Your task to perform on an android device: turn off location history Image 0: 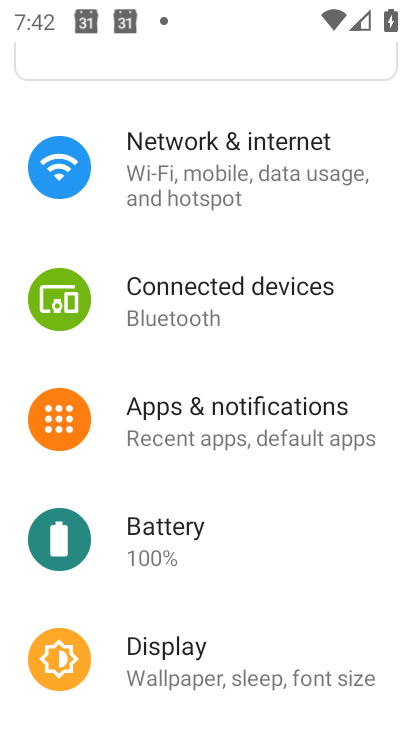
Step 0: drag from (116, 674) to (63, 45)
Your task to perform on an android device: turn off location history Image 1: 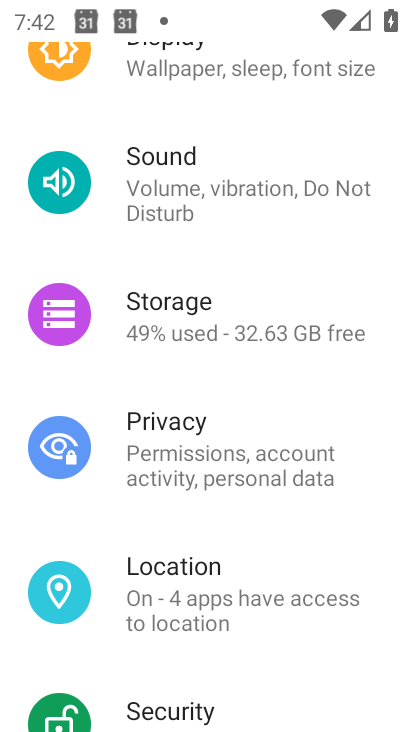
Step 1: click (170, 576)
Your task to perform on an android device: turn off location history Image 2: 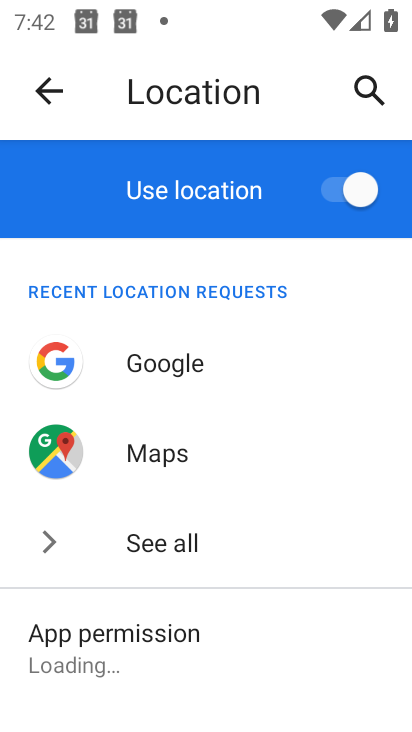
Step 2: drag from (188, 566) to (102, 21)
Your task to perform on an android device: turn off location history Image 3: 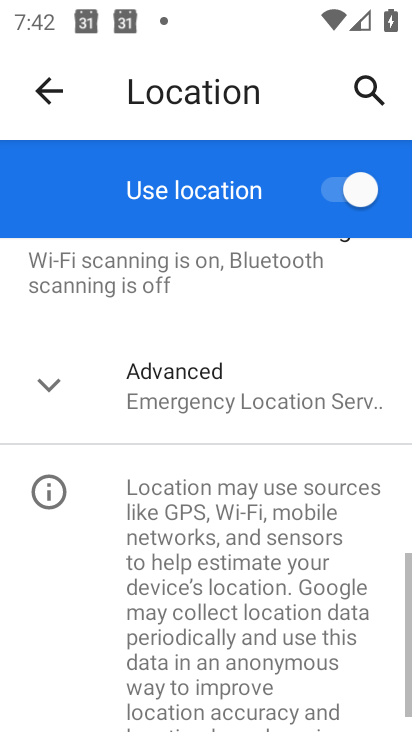
Step 3: click (150, 376)
Your task to perform on an android device: turn off location history Image 4: 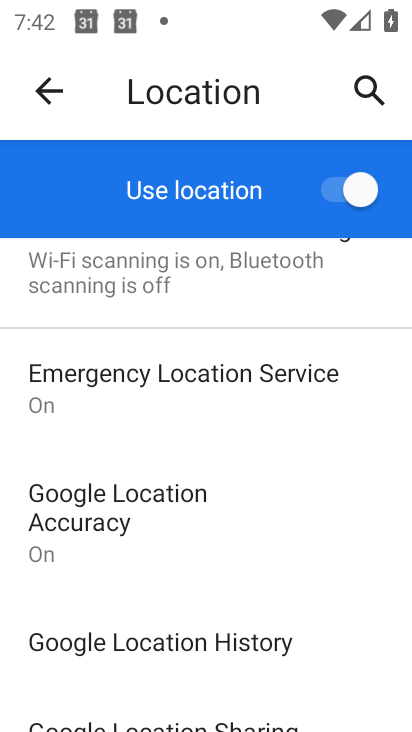
Step 4: click (202, 635)
Your task to perform on an android device: turn off location history Image 5: 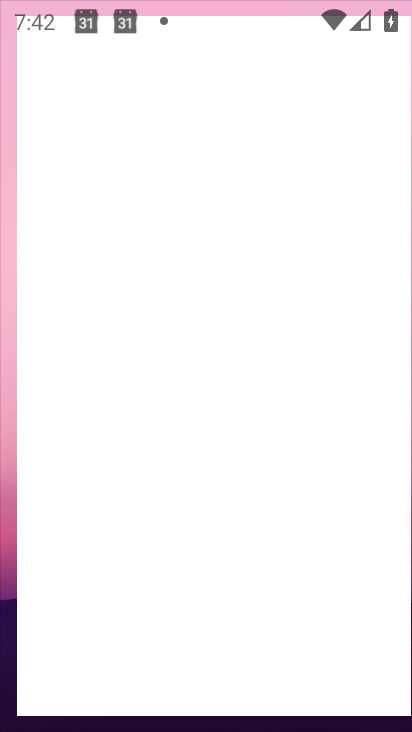
Step 5: drag from (202, 635) to (126, 74)
Your task to perform on an android device: turn off location history Image 6: 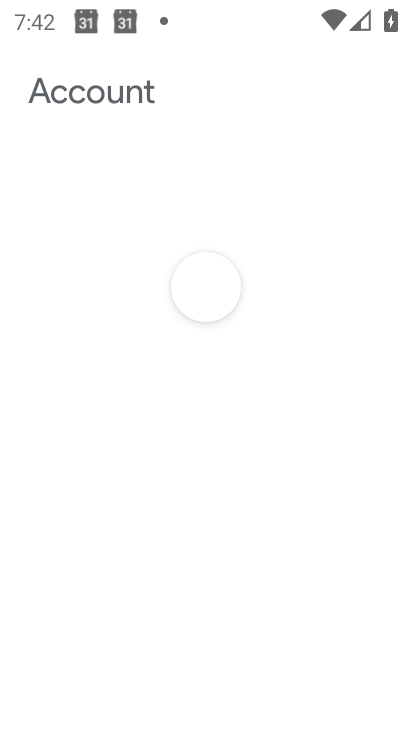
Step 6: drag from (160, 580) to (151, 191)
Your task to perform on an android device: turn off location history Image 7: 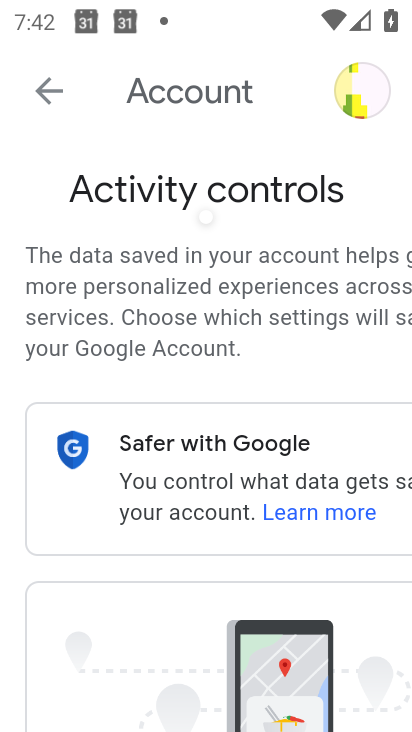
Step 7: drag from (231, 646) to (124, 6)
Your task to perform on an android device: turn off location history Image 8: 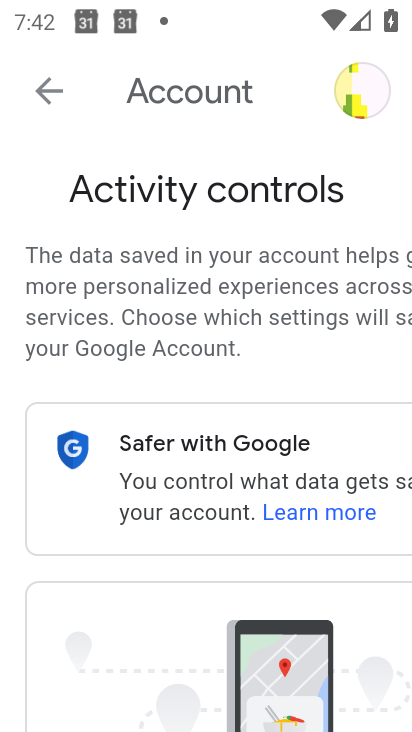
Step 8: drag from (331, 658) to (143, 32)
Your task to perform on an android device: turn off location history Image 9: 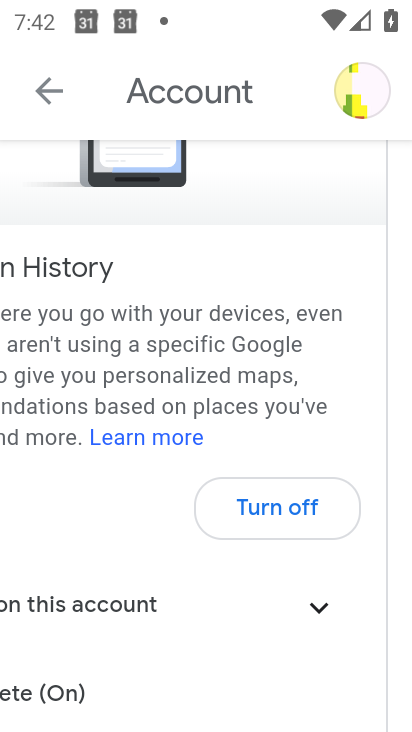
Step 9: click (256, 521)
Your task to perform on an android device: turn off location history Image 10: 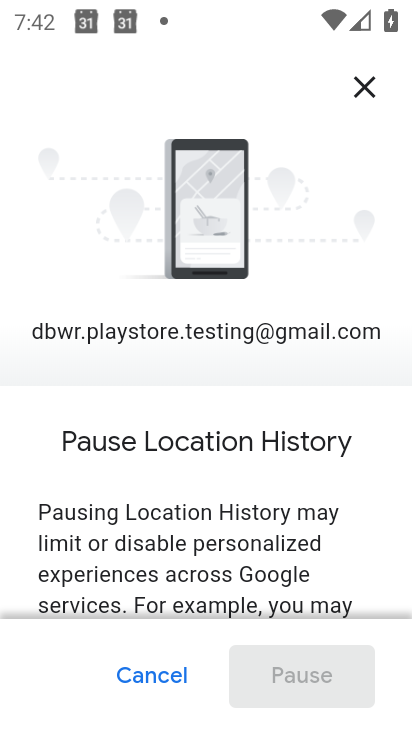
Step 10: drag from (293, 599) to (297, 0)
Your task to perform on an android device: turn off location history Image 11: 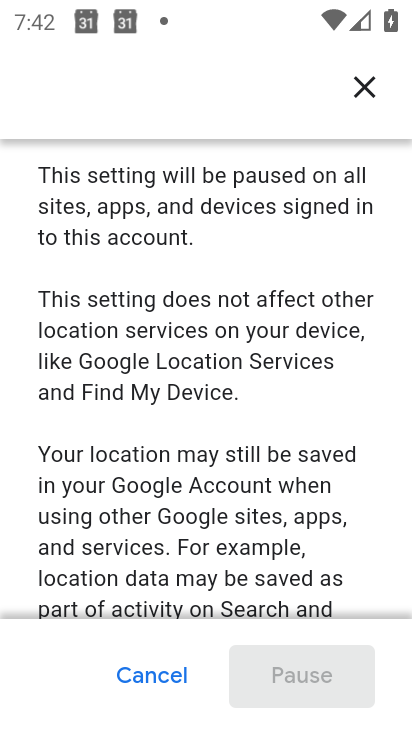
Step 11: drag from (224, 461) to (224, 0)
Your task to perform on an android device: turn off location history Image 12: 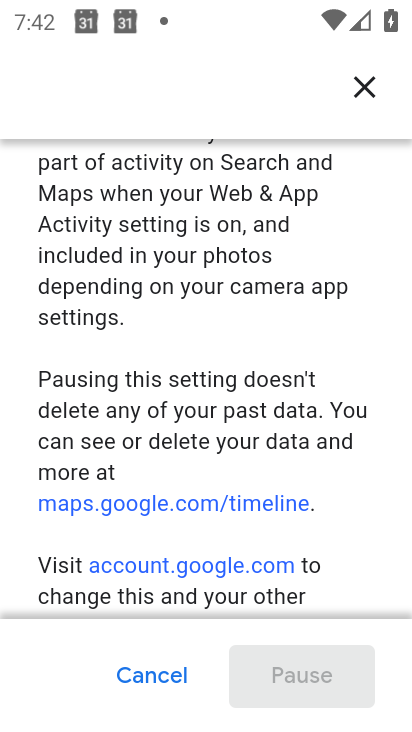
Step 12: drag from (273, 614) to (277, 14)
Your task to perform on an android device: turn off location history Image 13: 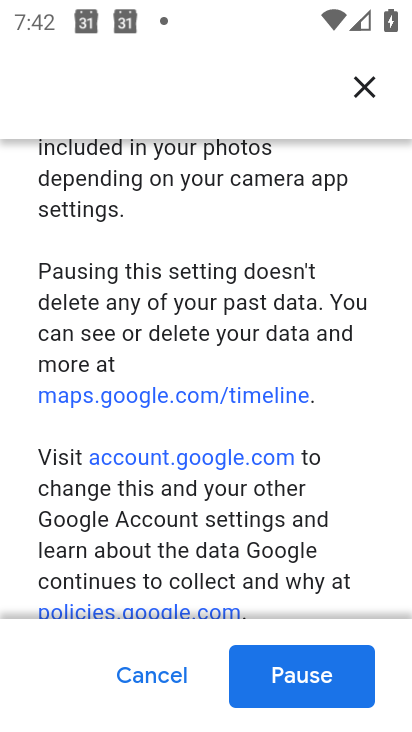
Step 13: click (279, 687)
Your task to perform on an android device: turn off location history Image 14: 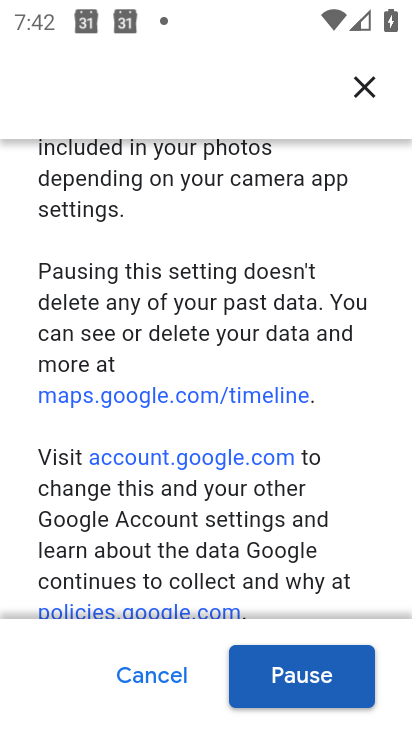
Step 14: click (278, 692)
Your task to perform on an android device: turn off location history Image 15: 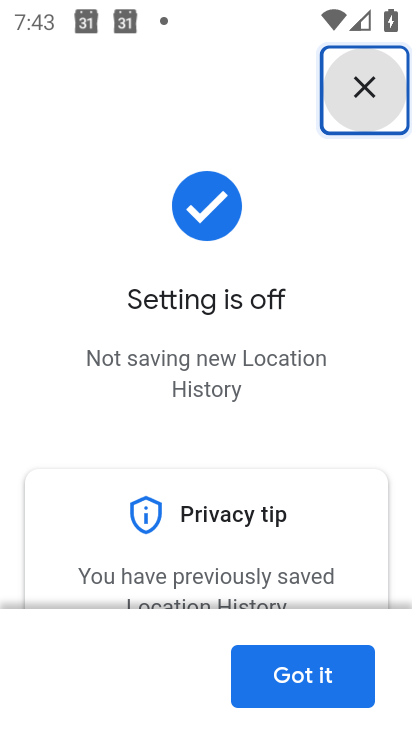
Step 15: click (318, 678)
Your task to perform on an android device: turn off location history Image 16: 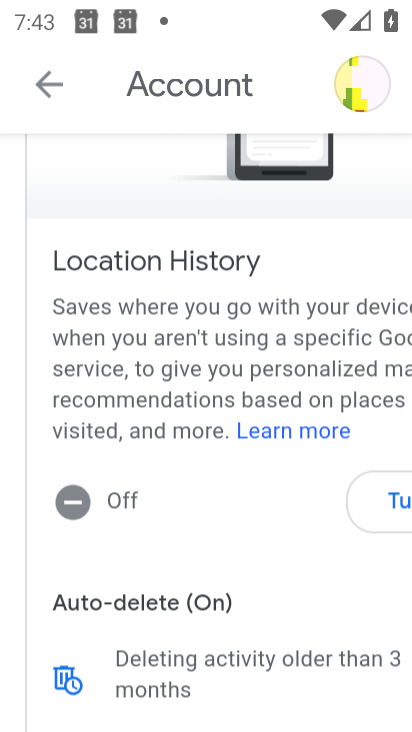
Step 16: task complete